Your task to perform on an android device: Open Amazon Image 0: 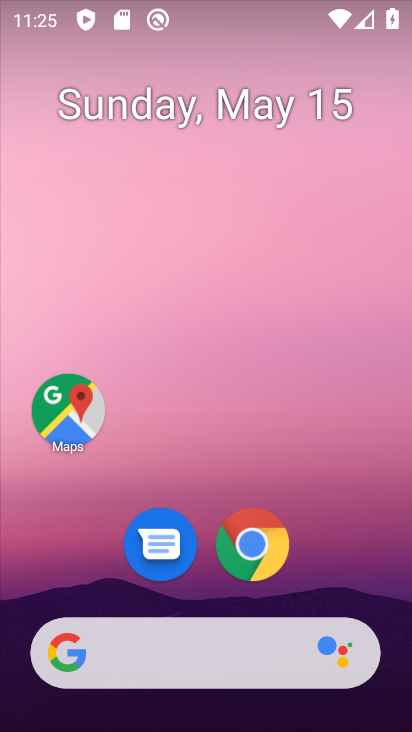
Step 0: click (262, 540)
Your task to perform on an android device: Open Amazon Image 1: 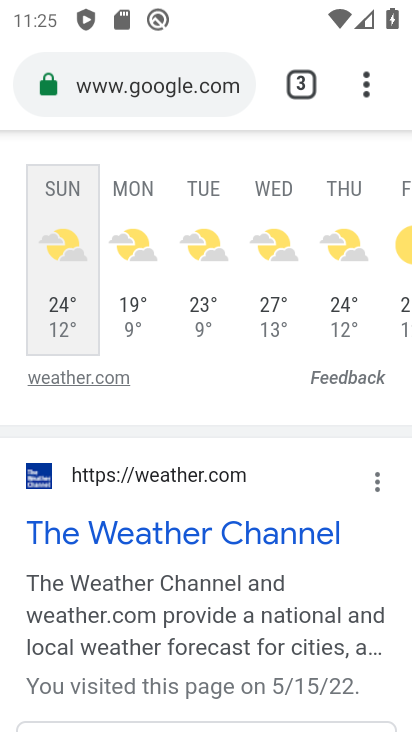
Step 1: click (297, 97)
Your task to perform on an android device: Open Amazon Image 2: 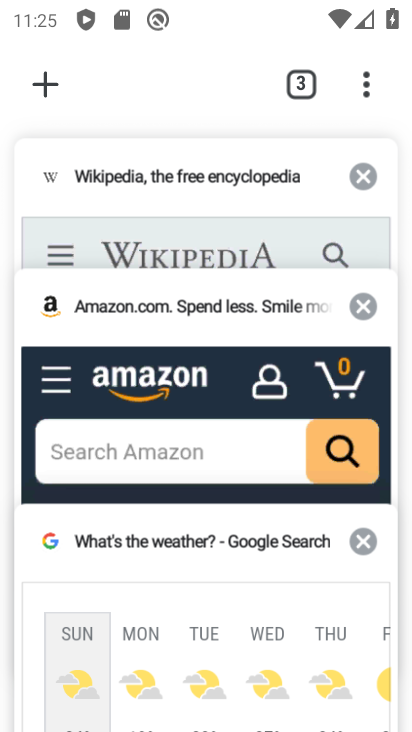
Step 2: click (227, 286)
Your task to perform on an android device: Open Amazon Image 3: 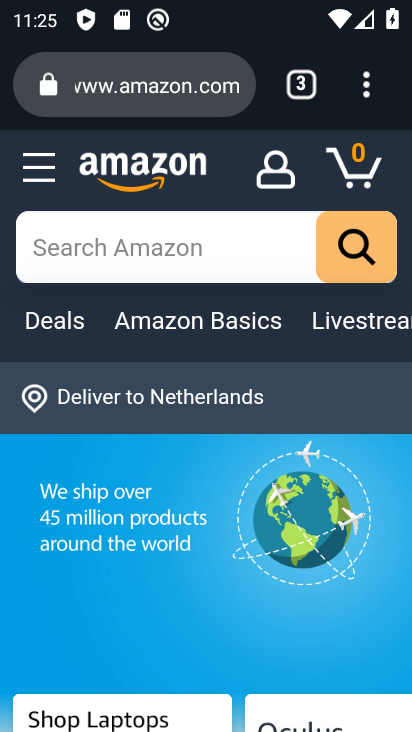
Step 3: task complete